Your task to perform on an android device: Open the map Image 0: 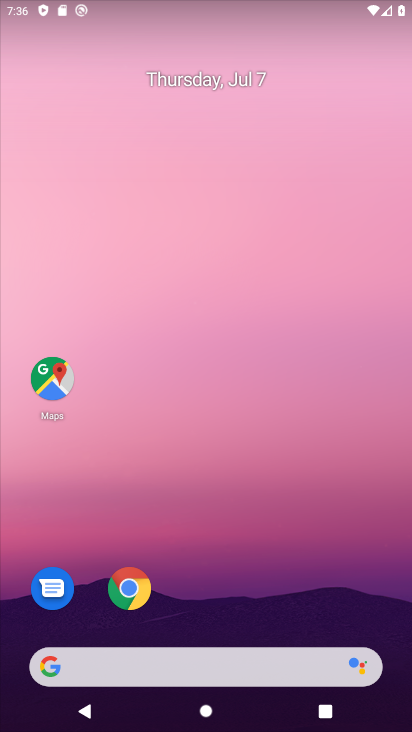
Step 0: drag from (212, 603) to (256, 12)
Your task to perform on an android device: Open the map Image 1: 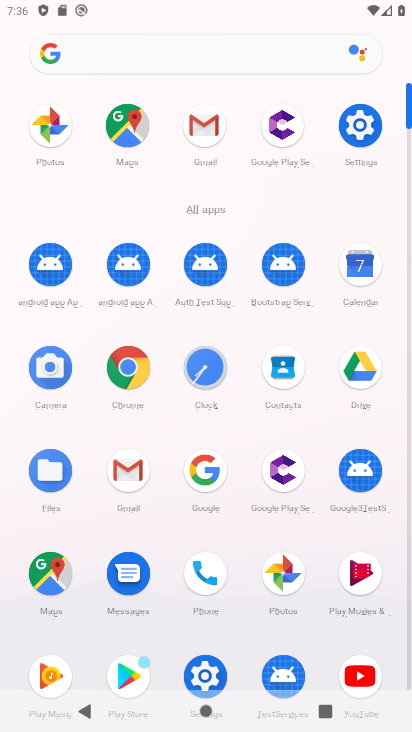
Step 1: click (56, 578)
Your task to perform on an android device: Open the map Image 2: 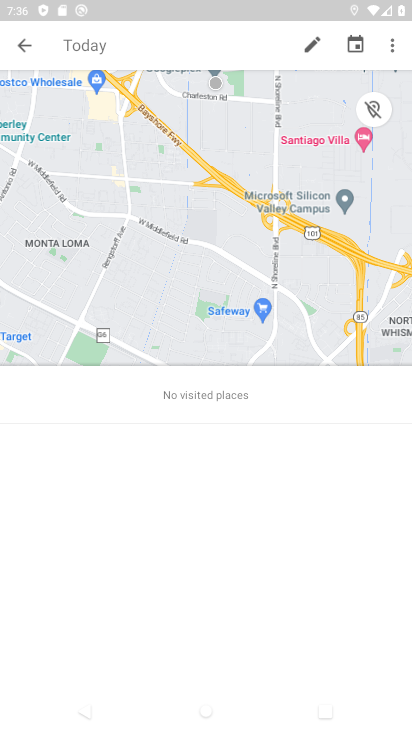
Step 2: click (153, 135)
Your task to perform on an android device: Open the map Image 3: 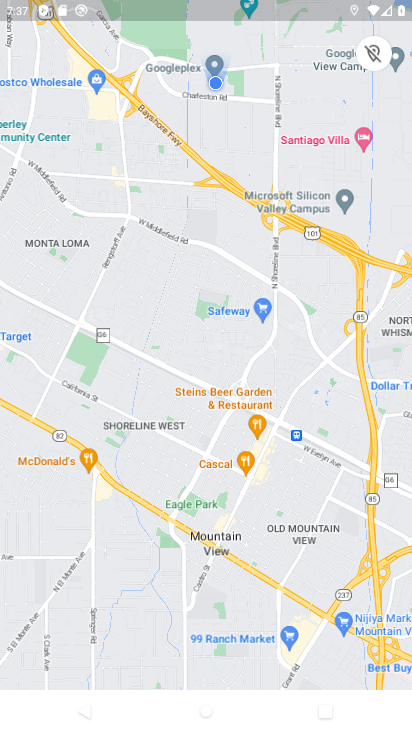
Step 3: press home button
Your task to perform on an android device: Open the map Image 4: 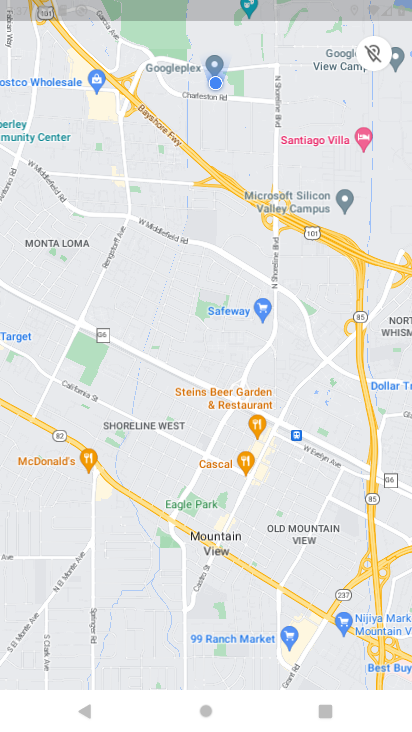
Step 4: drag from (244, 350) to (289, 81)
Your task to perform on an android device: Open the map Image 5: 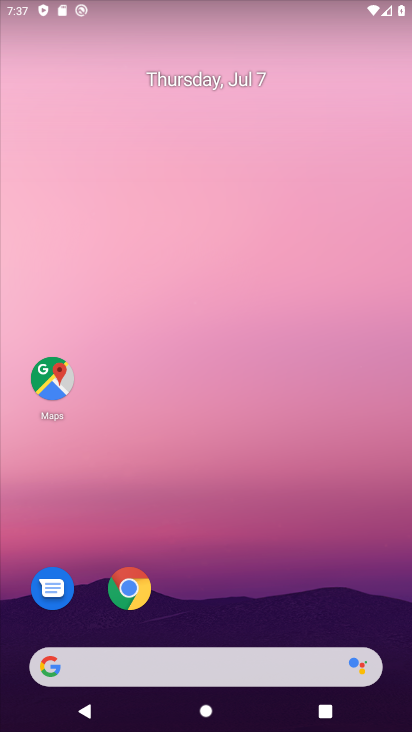
Step 5: drag from (204, 578) to (240, 135)
Your task to perform on an android device: Open the map Image 6: 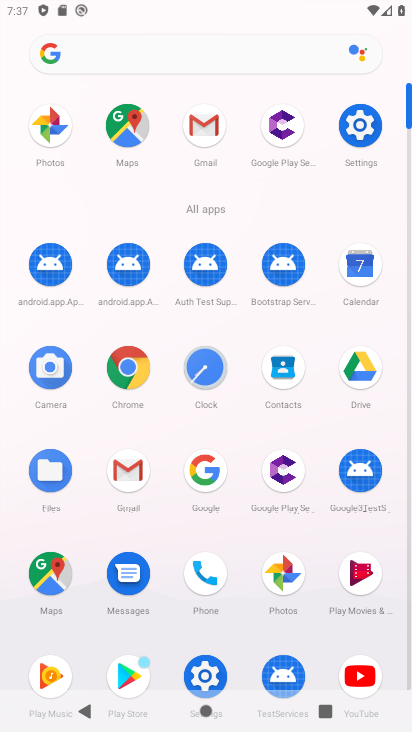
Step 6: click (135, 117)
Your task to perform on an android device: Open the map Image 7: 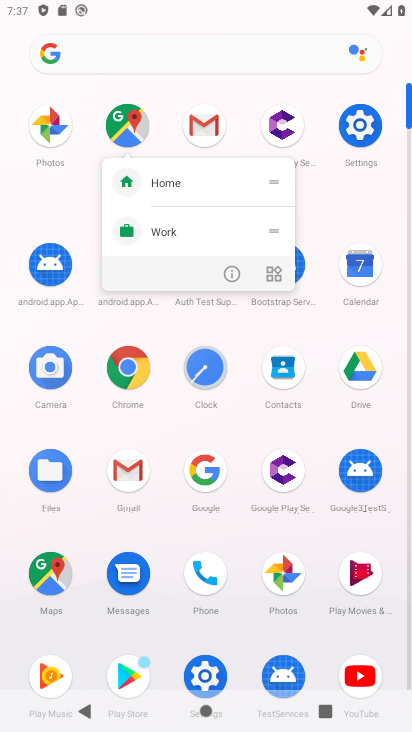
Step 7: click (233, 271)
Your task to perform on an android device: Open the map Image 8: 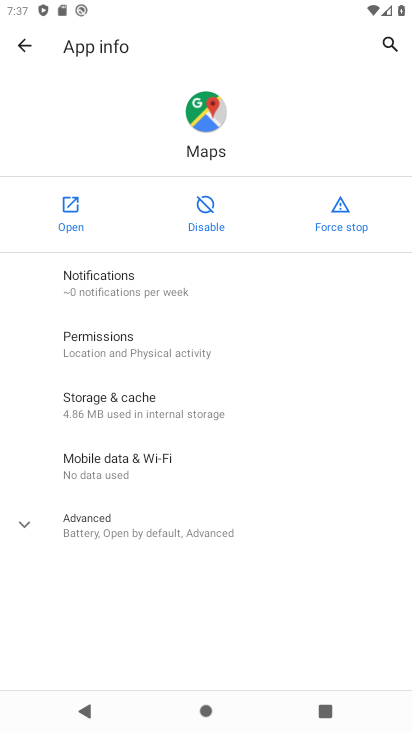
Step 8: click (71, 206)
Your task to perform on an android device: Open the map Image 9: 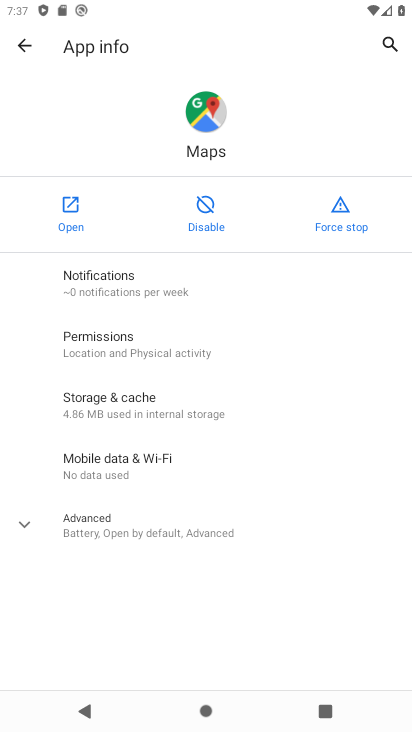
Step 9: click (71, 206)
Your task to perform on an android device: Open the map Image 10: 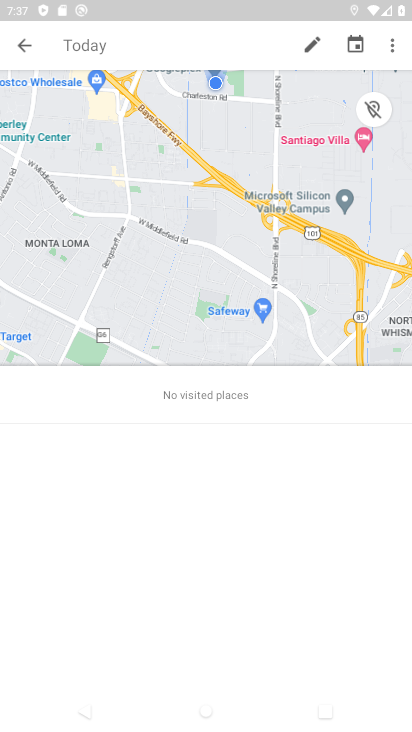
Step 10: task complete